Your task to perform on an android device: Open ESPN.com Image 0: 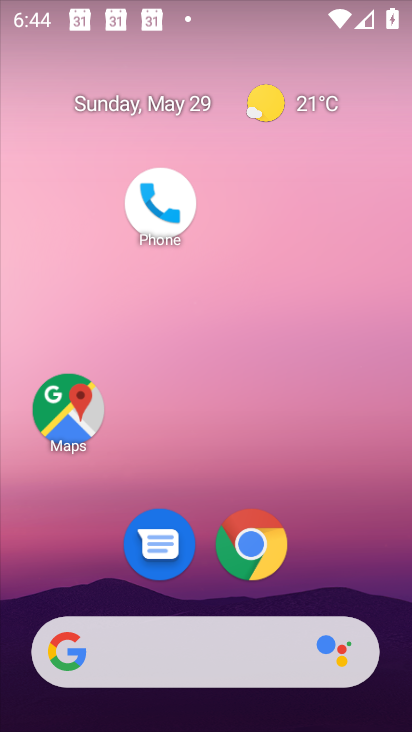
Step 0: click (243, 549)
Your task to perform on an android device: Open ESPN.com Image 1: 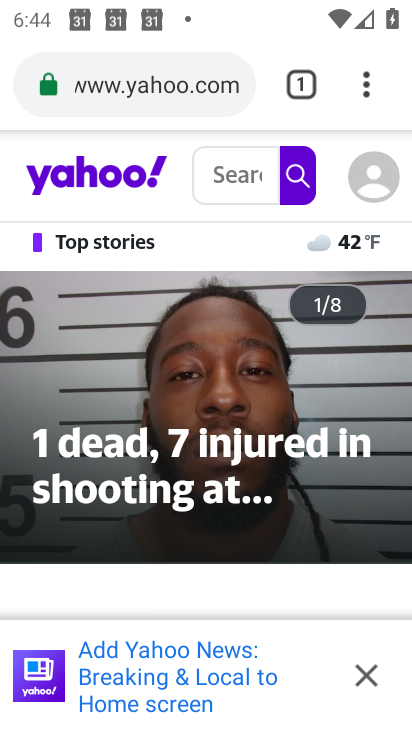
Step 1: click (363, 81)
Your task to perform on an android device: Open ESPN.com Image 2: 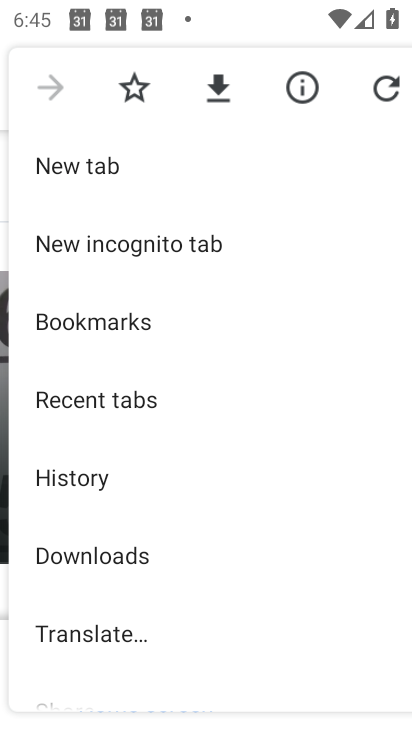
Step 2: click (73, 168)
Your task to perform on an android device: Open ESPN.com Image 3: 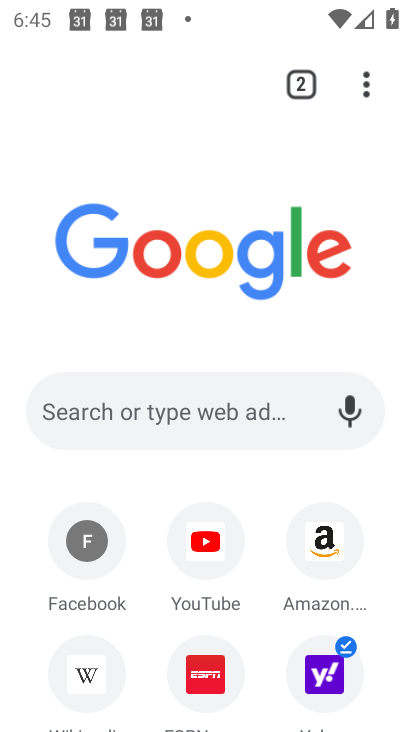
Step 3: click (199, 678)
Your task to perform on an android device: Open ESPN.com Image 4: 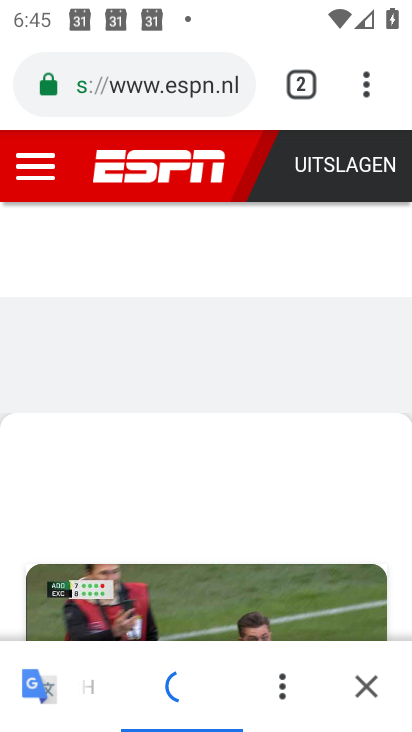
Step 4: click (267, 498)
Your task to perform on an android device: Open ESPN.com Image 5: 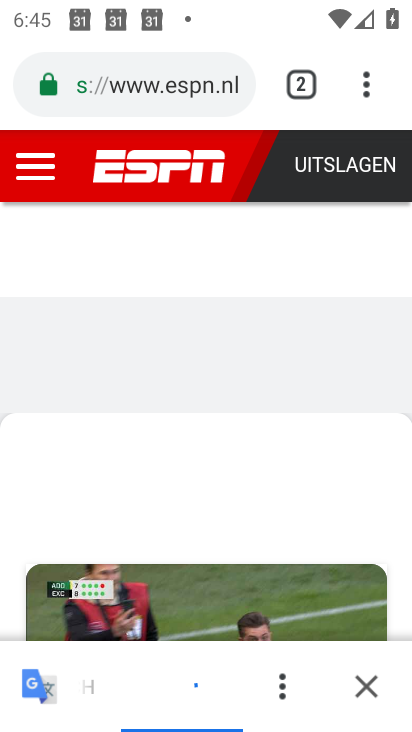
Step 5: task complete